Your task to perform on an android device: Search for seafood restaurants on Google Maps Image 0: 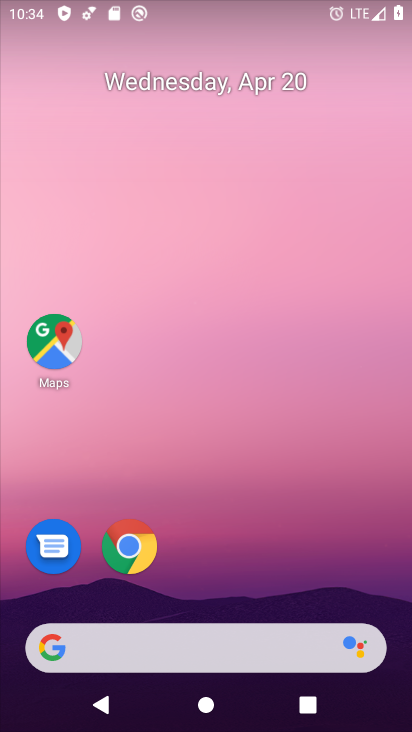
Step 0: click (54, 348)
Your task to perform on an android device: Search for seafood restaurants on Google Maps Image 1: 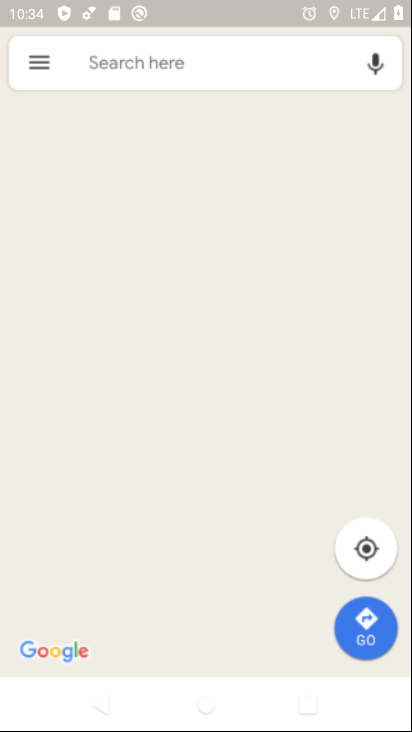
Step 1: click (205, 65)
Your task to perform on an android device: Search for seafood restaurants on Google Maps Image 2: 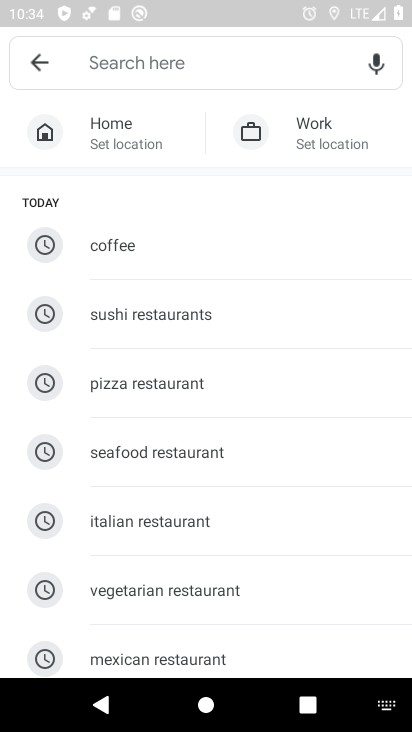
Step 2: click (100, 451)
Your task to perform on an android device: Search for seafood restaurants on Google Maps Image 3: 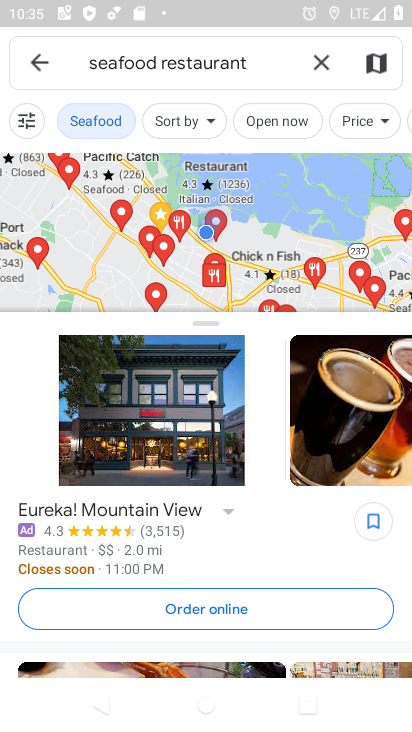
Step 3: task complete